Your task to perform on an android device: Show me popular games on the Play Store Image 0: 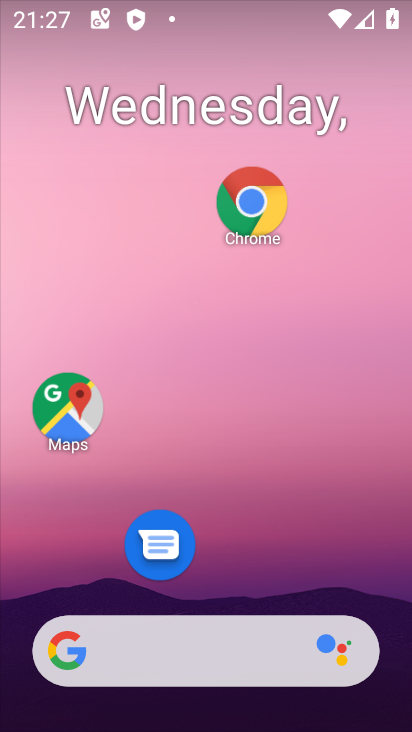
Step 0: drag from (199, 571) to (247, 9)
Your task to perform on an android device: Show me popular games on the Play Store Image 1: 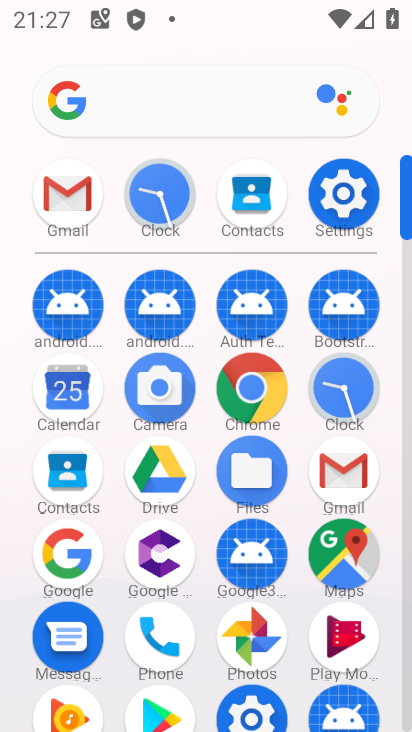
Step 1: click (167, 726)
Your task to perform on an android device: Show me popular games on the Play Store Image 2: 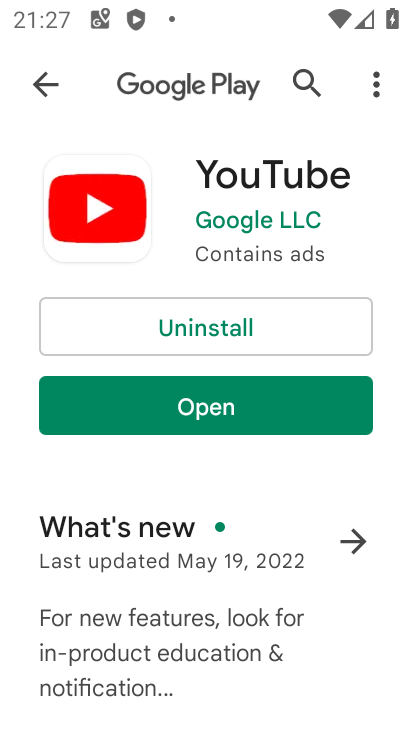
Step 2: click (28, 88)
Your task to perform on an android device: Show me popular games on the Play Store Image 3: 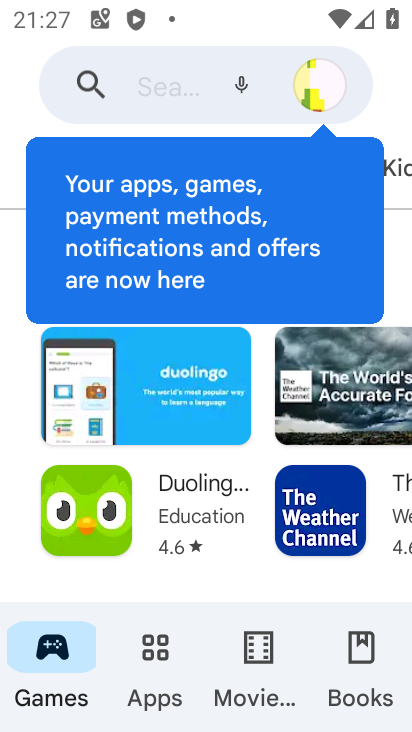
Step 3: click (168, 654)
Your task to perform on an android device: Show me popular games on the Play Store Image 4: 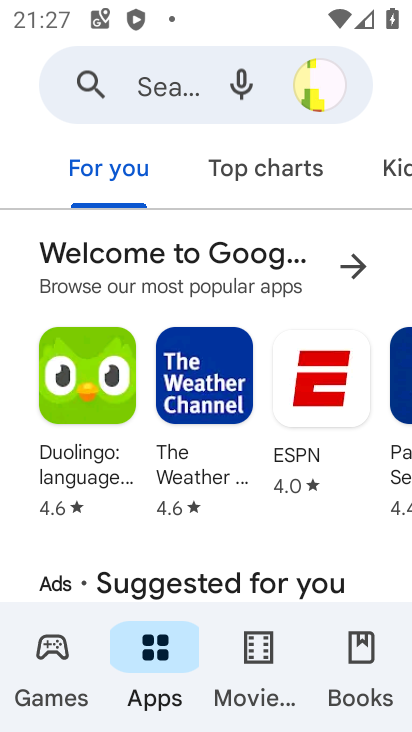
Step 4: click (58, 665)
Your task to perform on an android device: Show me popular games on the Play Store Image 5: 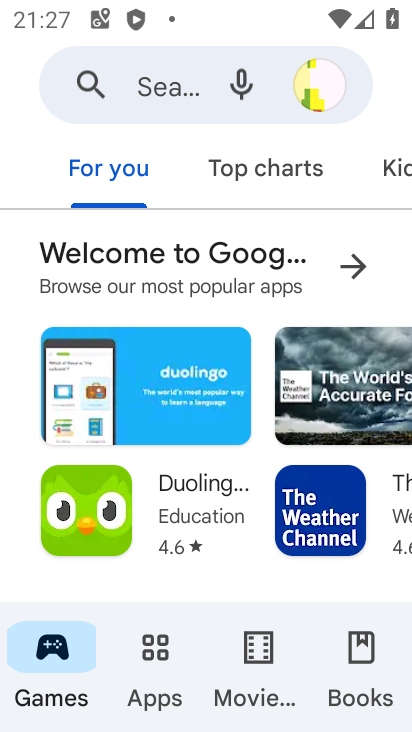
Step 5: click (247, 179)
Your task to perform on an android device: Show me popular games on the Play Store Image 6: 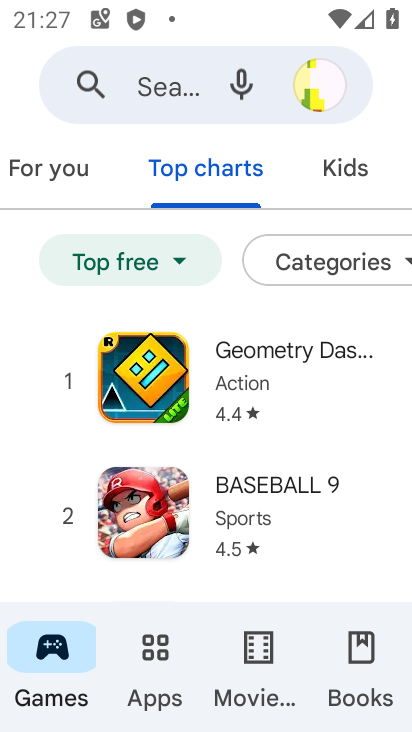
Step 6: task complete